Your task to perform on an android device: Turn on the flashlight Image 0: 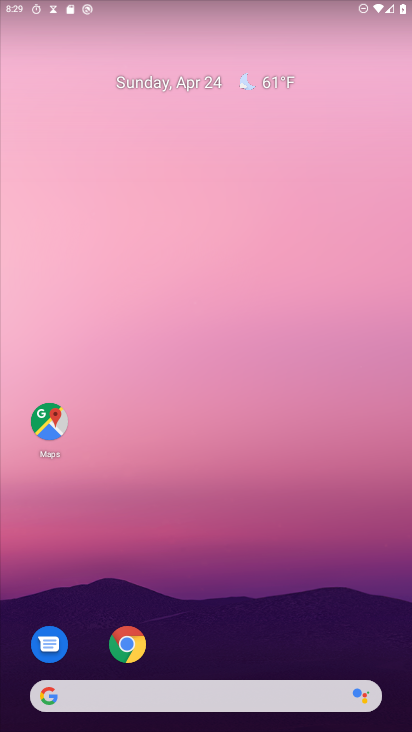
Step 0: drag from (164, 9) to (187, 461)
Your task to perform on an android device: Turn on the flashlight Image 1: 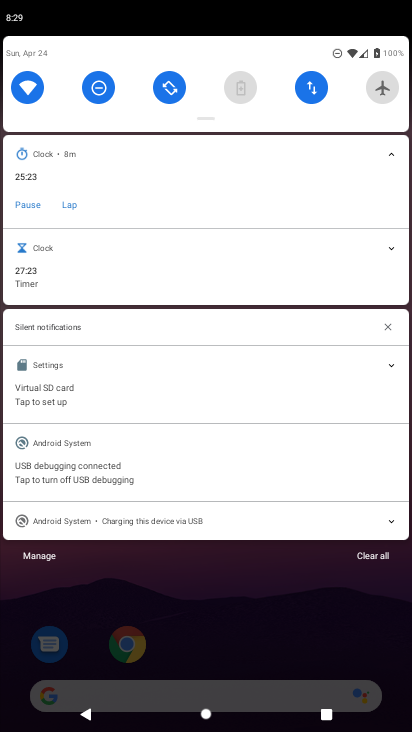
Step 1: task complete